Your task to perform on an android device: Open calendar and show me the third week of next month Image 0: 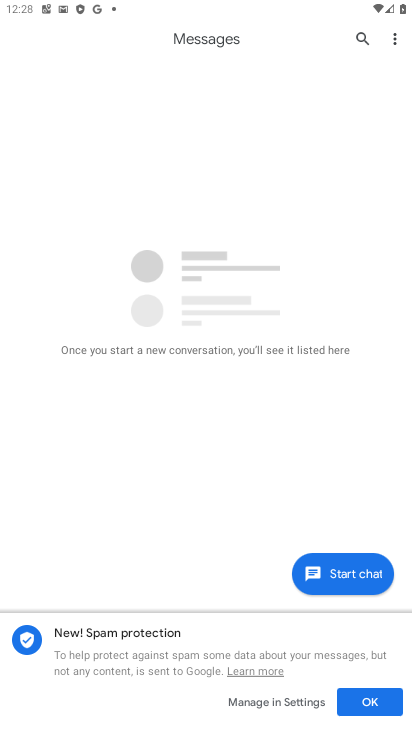
Step 0: press home button
Your task to perform on an android device: Open calendar and show me the third week of next month Image 1: 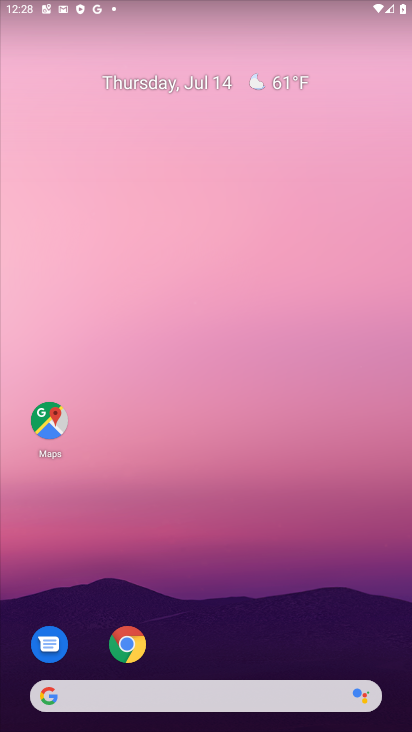
Step 1: drag from (279, 661) to (292, 58)
Your task to perform on an android device: Open calendar and show me the third week of next month Image 2: 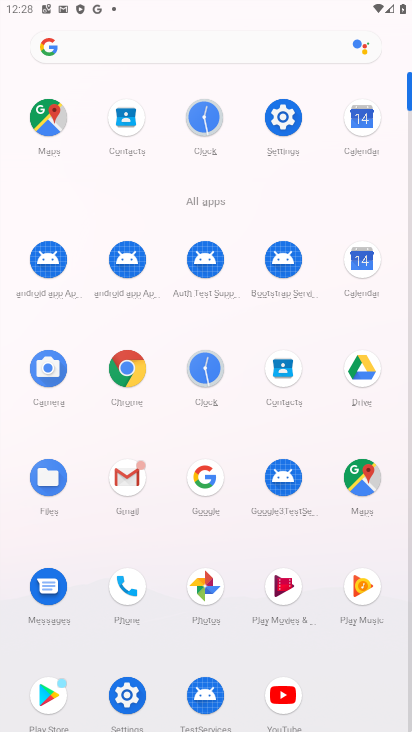
Step 2: click (369, 121)
Your task to perform on an android device: Open calendar and show me the third week of next month Image 3: 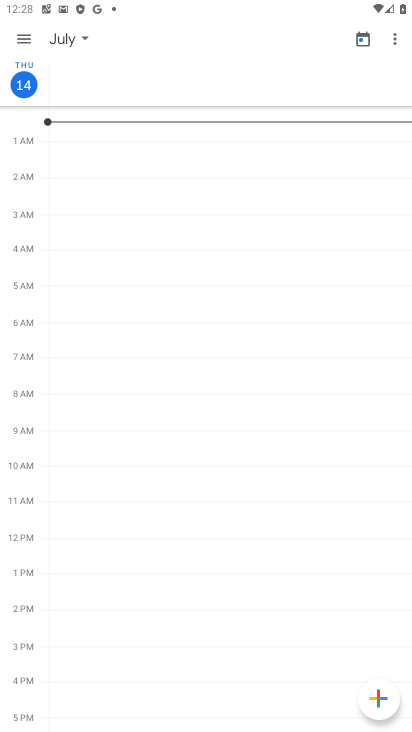
Step 3: click (26, 36)
Your task to perform on an android device: Open calendar and show me the third week of next month Image 4: 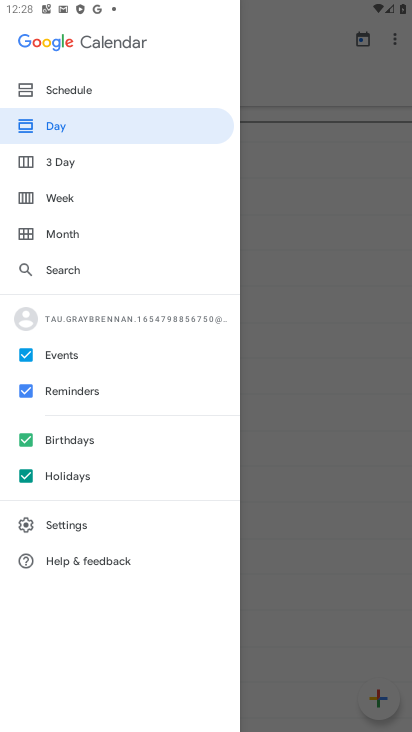
Step 4: click (83, 84)
Your task to perform on an android device: Open calendar and show me the third week of next month Image 5: 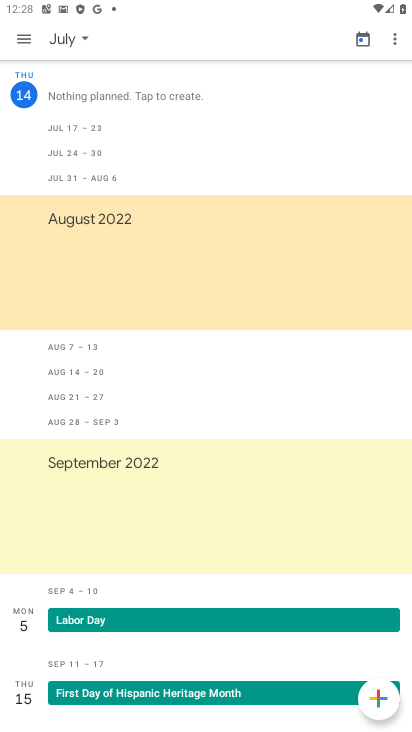
Step 5: click (85, 38)
Your task to perform on an android device: Open calendar and show me the third week of next month Image 6: 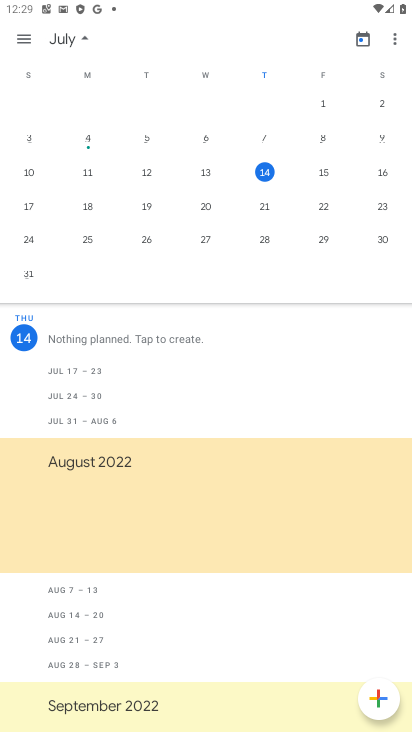
Step 6: drag from (376, 181) to (50, 183)
Your task to perform on an android device: Open calendar and show me the third week of next month Image 7: 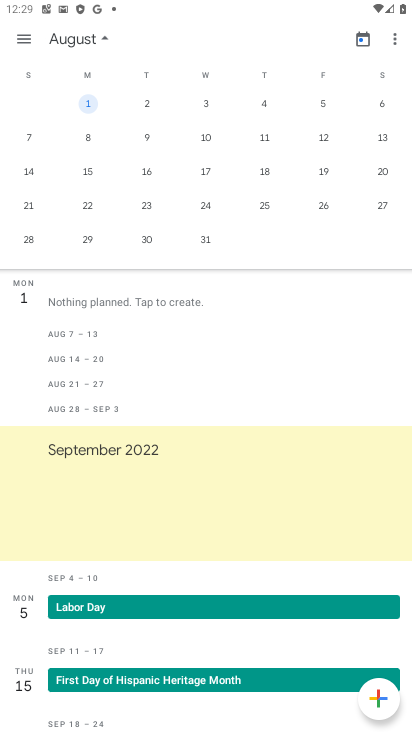
Step 7: click (36, 174)
Your task to perform on an android device: Open calendar and show me the third week of next month Image 8: 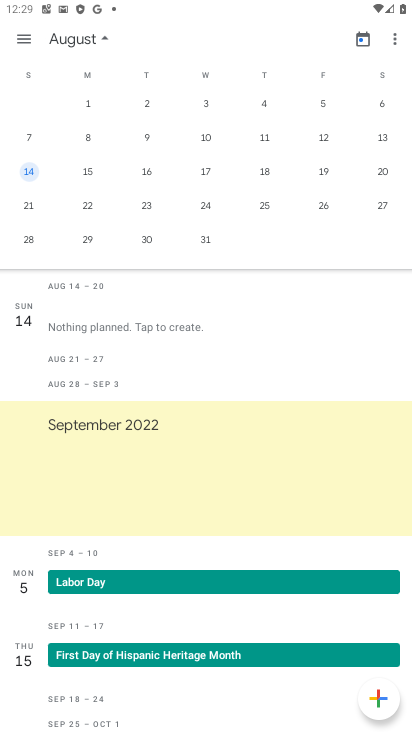
Step 8: task complete